Your task to perform on an android device: move an email to a new category in the gmail app Image 0: 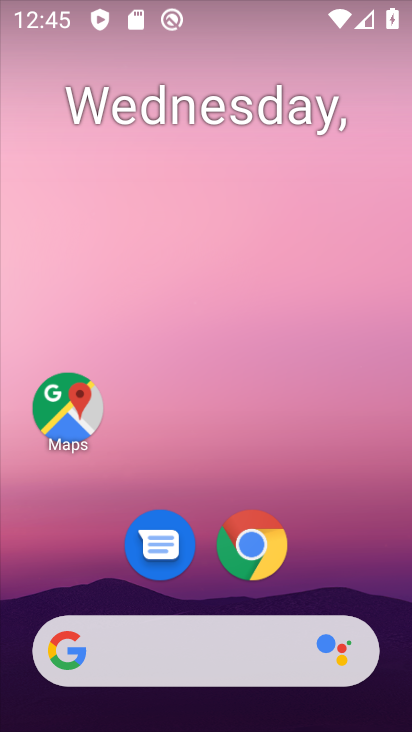
Step 0: drag from (322, 546) to (377, 140)
Your task to perform on an android device: move an email to a new category in the gmail app Image 1: 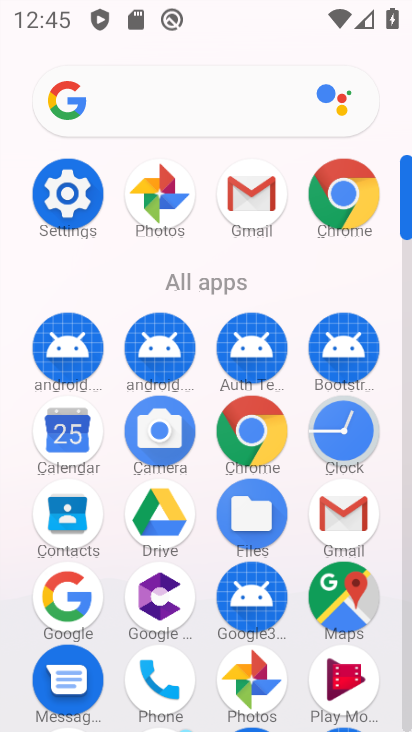
Step 1: click (248, 206)
Your task to perform on an android device: move an email to a new category in the gmail app Image 2: 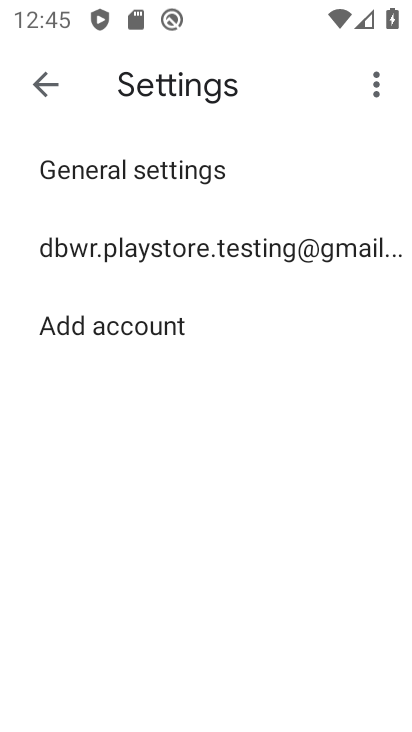
Step 2: click (36, 86)
Your task to perform on an android device: move an email to a new category in the gmail app Image 3: 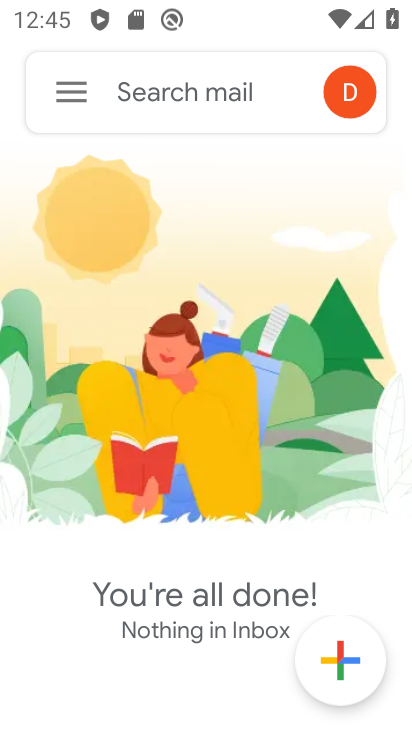
Step 3: click (81, 84)
Your task to perform on an android device: move an email to a new category in the gmail app Image 4: 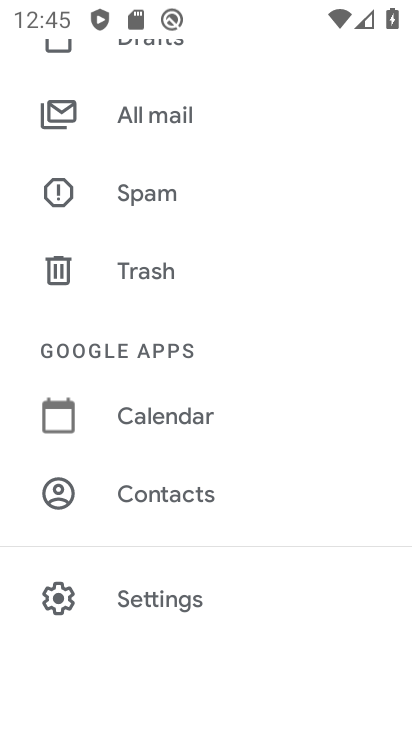
Step 4: click (169, 117)
Your task to perform on an android device: move an email to a new category in the gmail app Image 5: 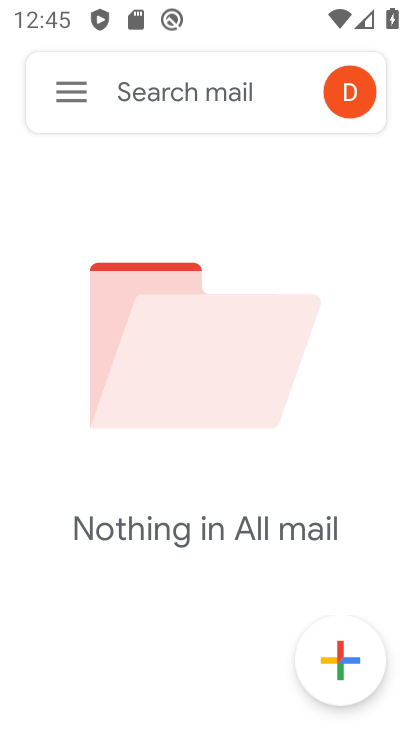
Step 5: task complete